Your task to perform on an android device: What's the weather today? Image 0: 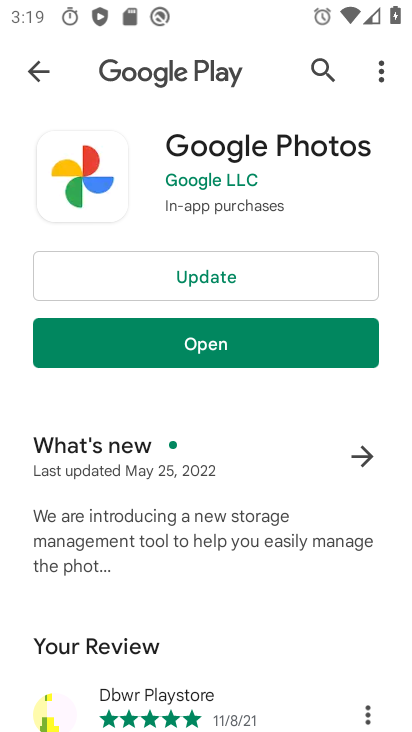
Step 0: press home button
Your task to perform on an android device: What's the weather today? Image 1: 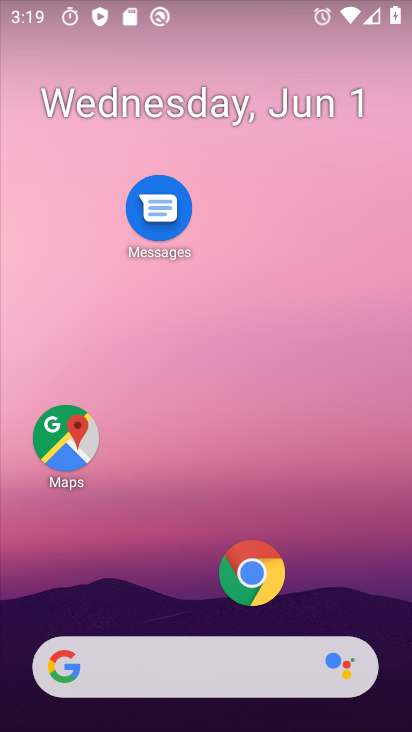
Step 1: drag from (192, 601) to (217, 244)
Your task to perform on an android device: What's the weather today? Image 2: 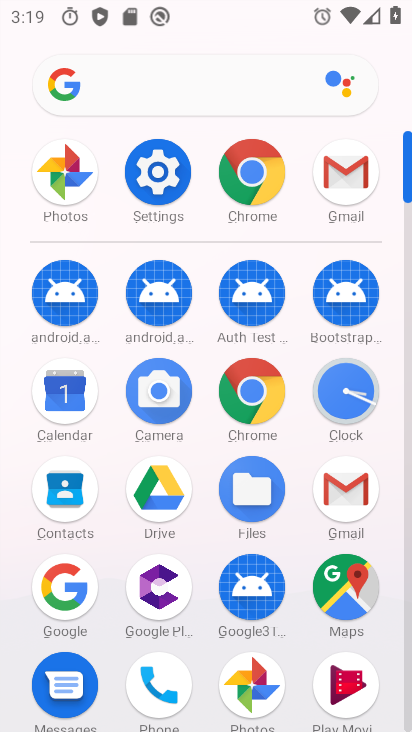
Step 2: click (84, 588)
Your task to perform on an android device: What's the weather today? Image 3: 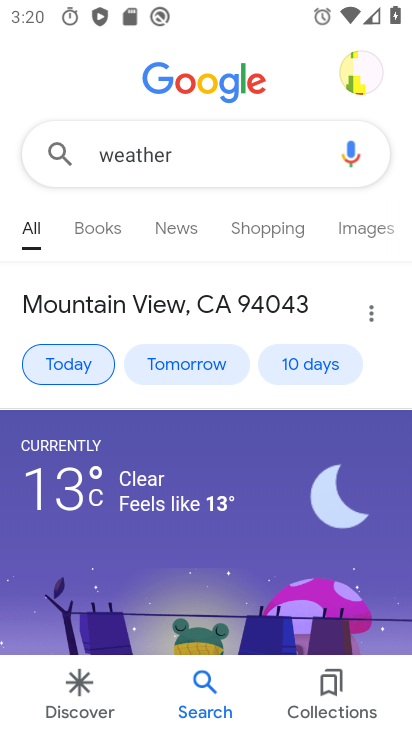
Step 3: drag from (198, 158) to (155, 158)
Your task to perform on an android device: What's the weather today? Image 4: 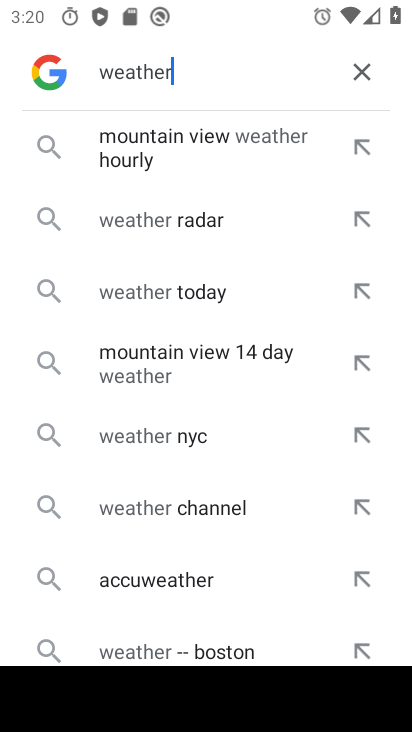
Step 4: click (369, 55)
Your task to perform on an android device: What's the weather today? Image 5: 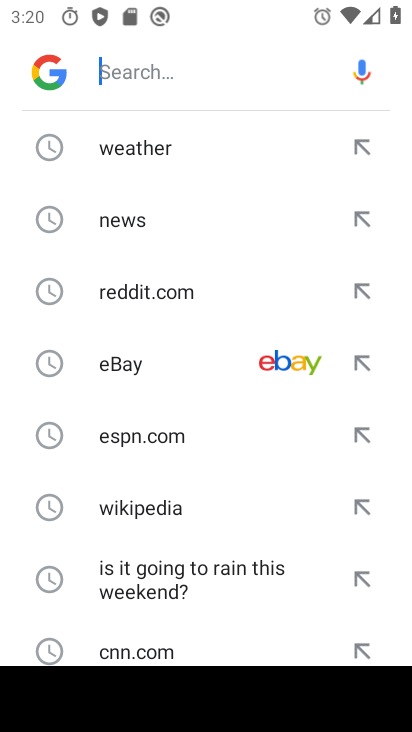
Step 5: click (184, 154)
Your task to perform on an android device: What's the weather today? Image 6: 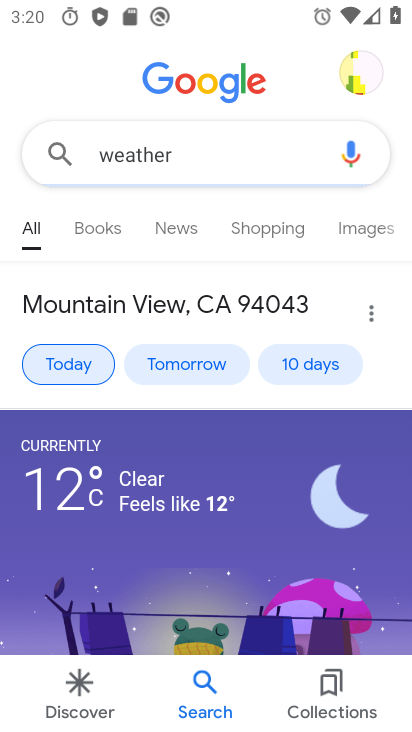
Step 6: task complete